Your task to perform on an android device: turn on sleep mode Image 0: 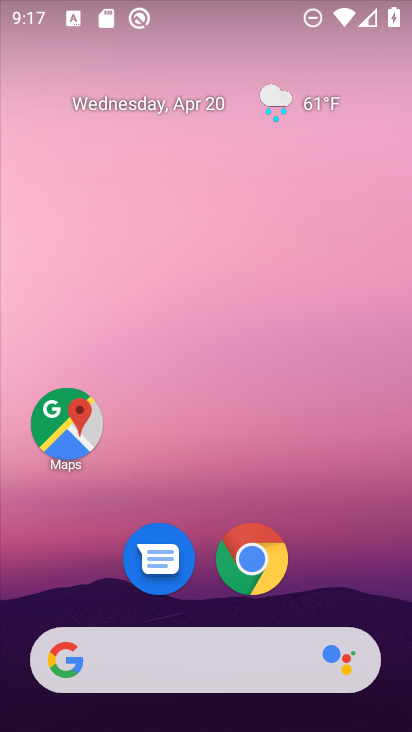
Step 0: drag from (381, 616) to (279, 161)
Your task to perform on an android device: turn on sleep mode Image 1: 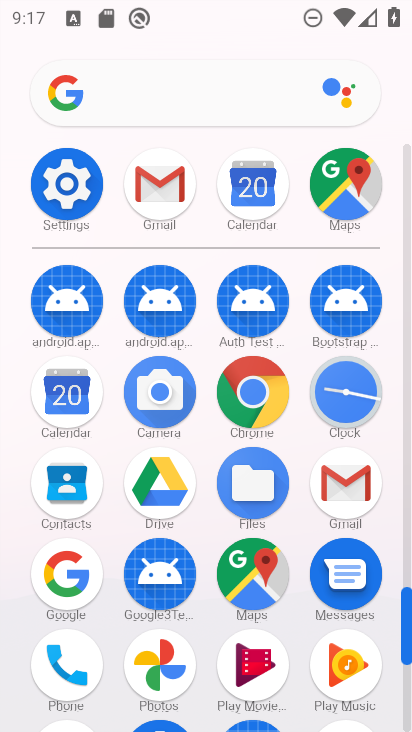
Step 1: click (407, 690)
Your task to perform on an android device: turn on sleep mode Image 2: 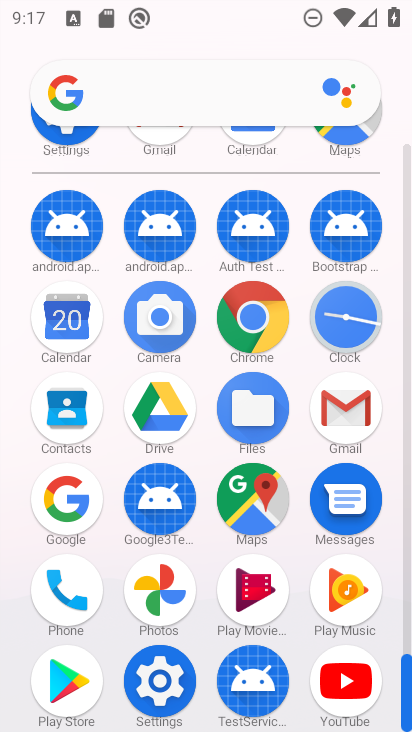
Step 2: click (156, 678)
Your task to perform on an android device: turn on sleep mode Image 3: 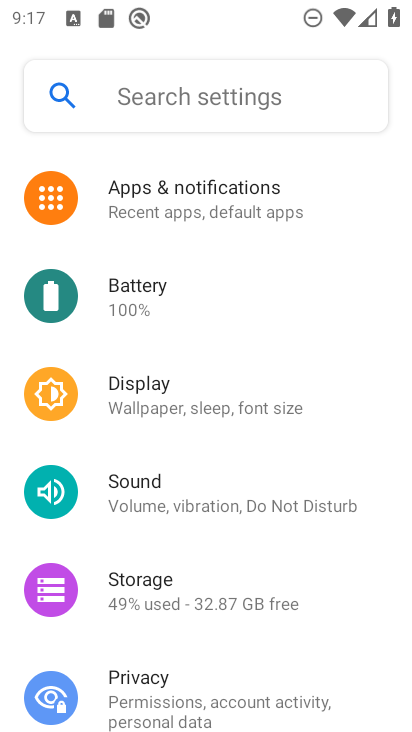
Step 3: click (147, 396)
Your task to perform on an android device: turn on sleep mode Image 4: 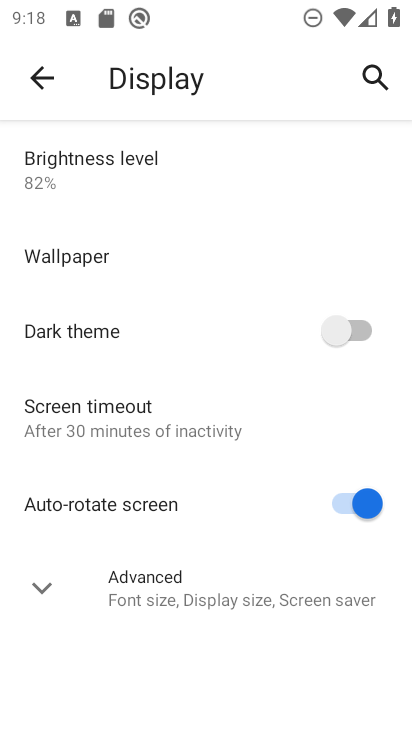
Step 4: click (45, 574)
Your task to perform on an android device: turn on sleep mode Image 5: 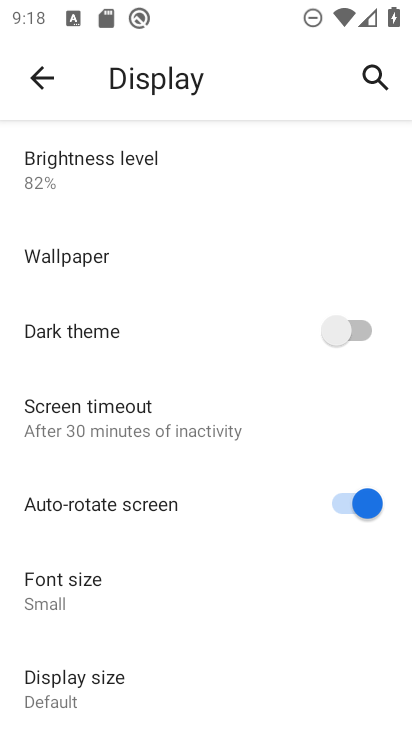
Step 5: task complete